Your task to perform on an android device: install app "Flipkart Online Shopping App" Image 0: 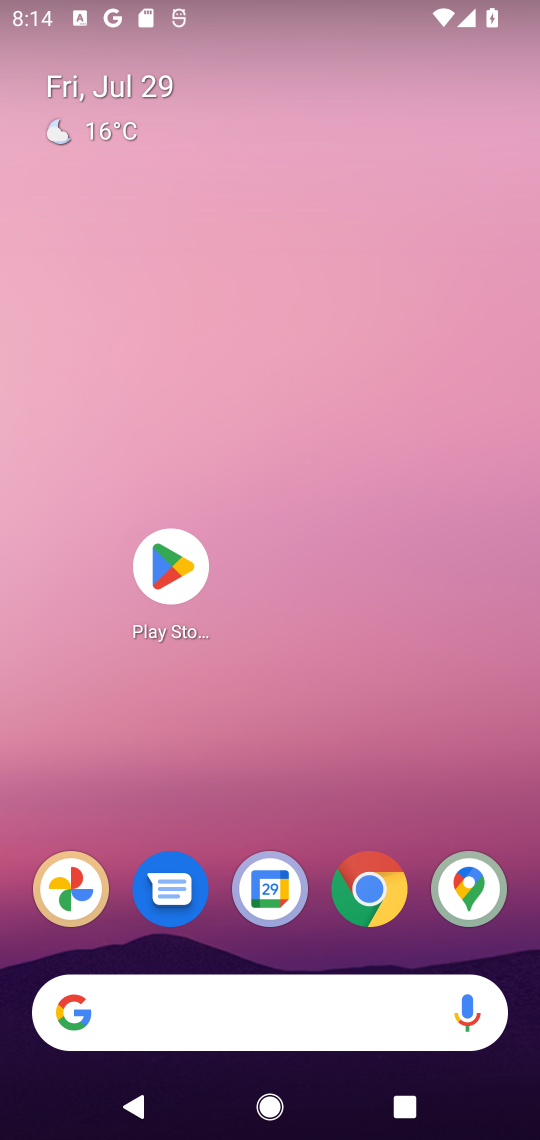
Step 0: press home button
Your task to perform on an android device: install app "Flipkart Online Shopping App" Image 1: 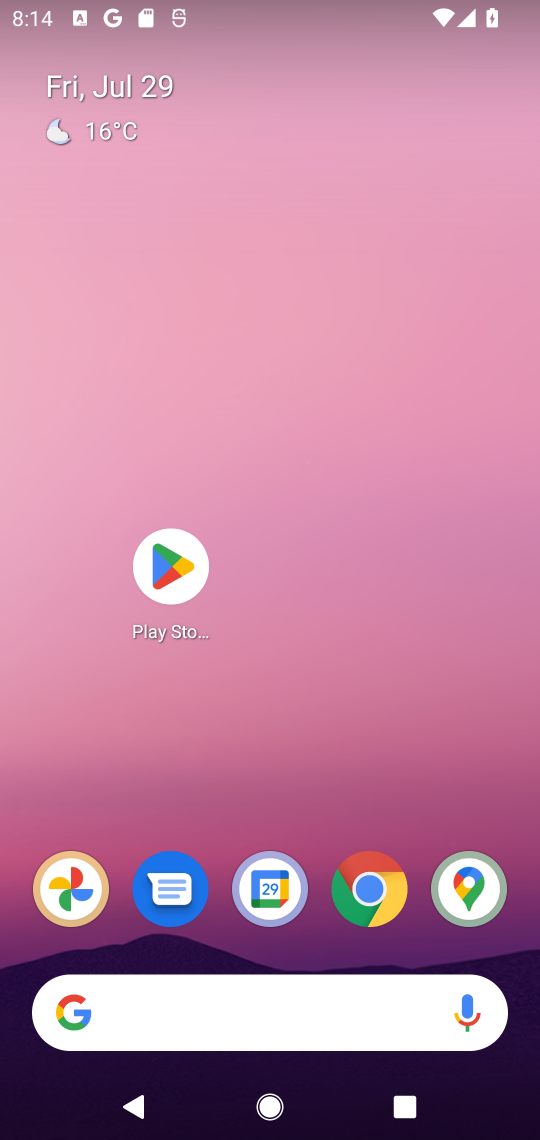
Step 1: click (169, 563)
Your task to perform on an android device: install app "Flipkart Online Shopping App" Image 2: 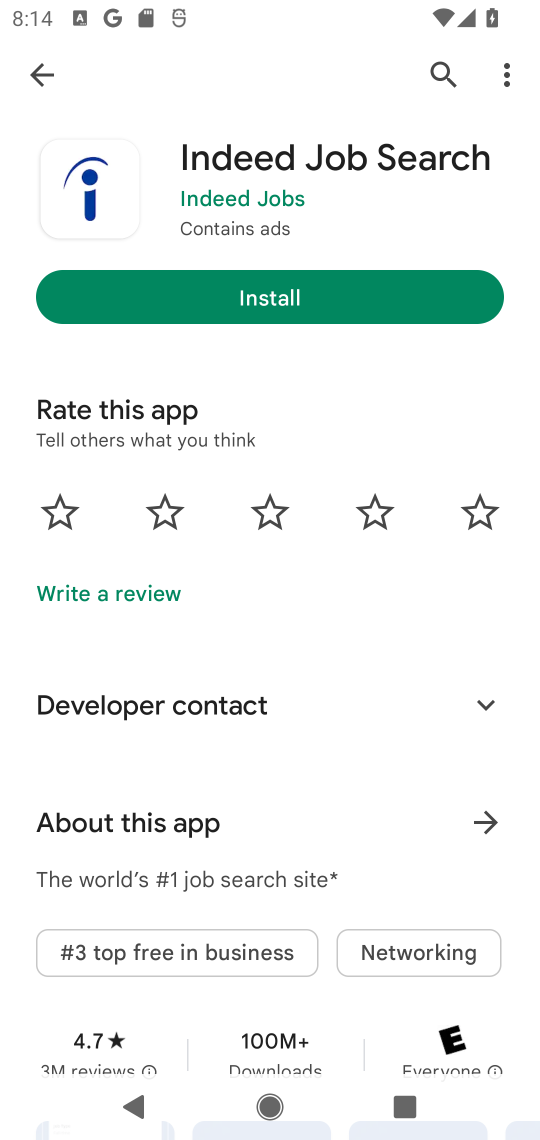
Step 2: click (438, 70)
Your task to perform on an android device: install app "Flipkart Online Shopping App" Image 3: 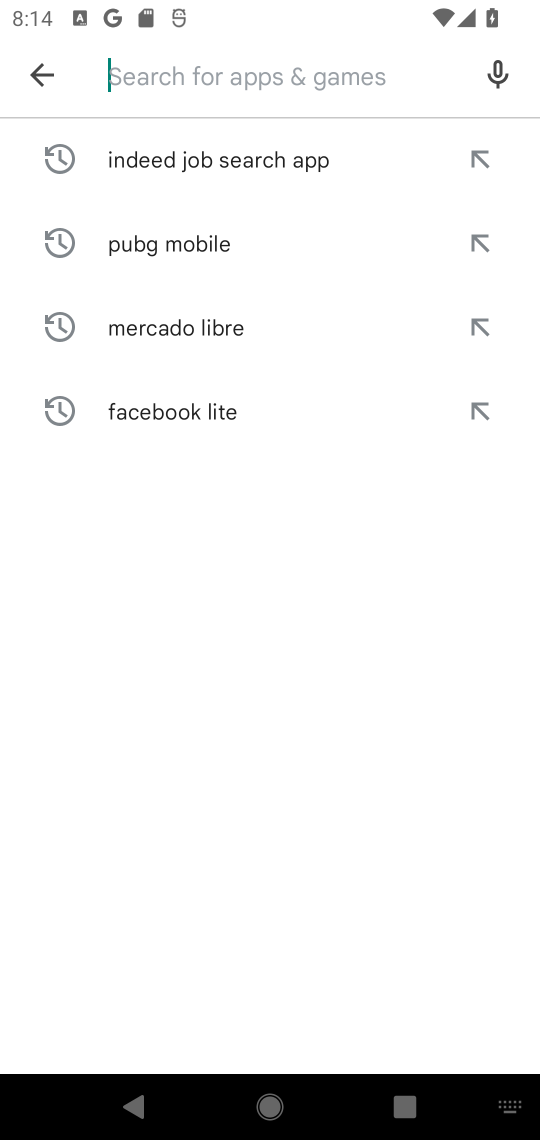
Step 3: type "Flipkart Online Shopping App"
Your task to perform on an android device: install app "Flipkart Online Shopping App" Image 4: 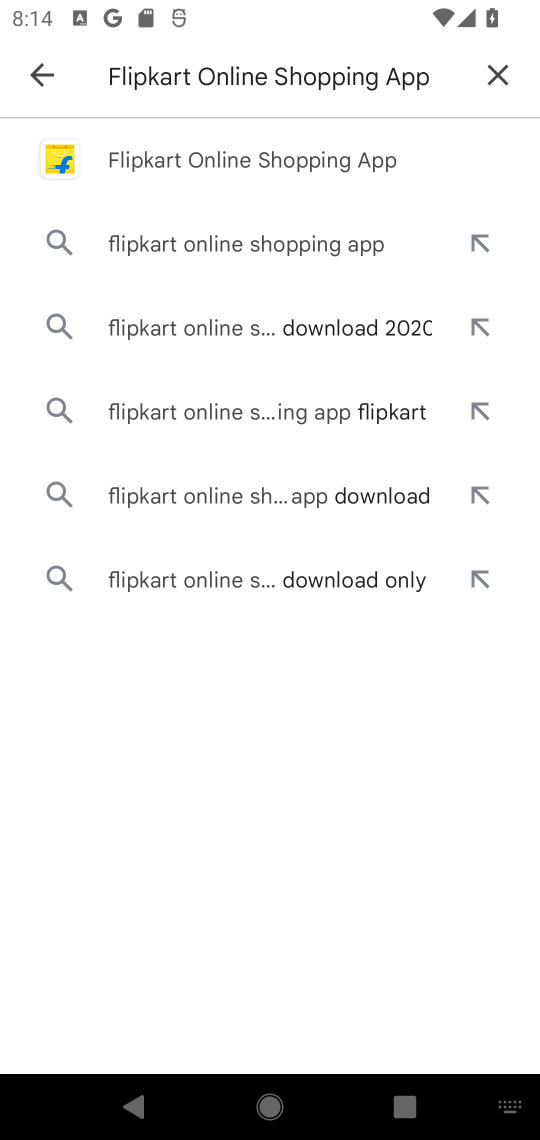
Step 4: click (267, 160)
Your task to perform on an android device: install app "Flipkart Online Shopping App" Image 5: 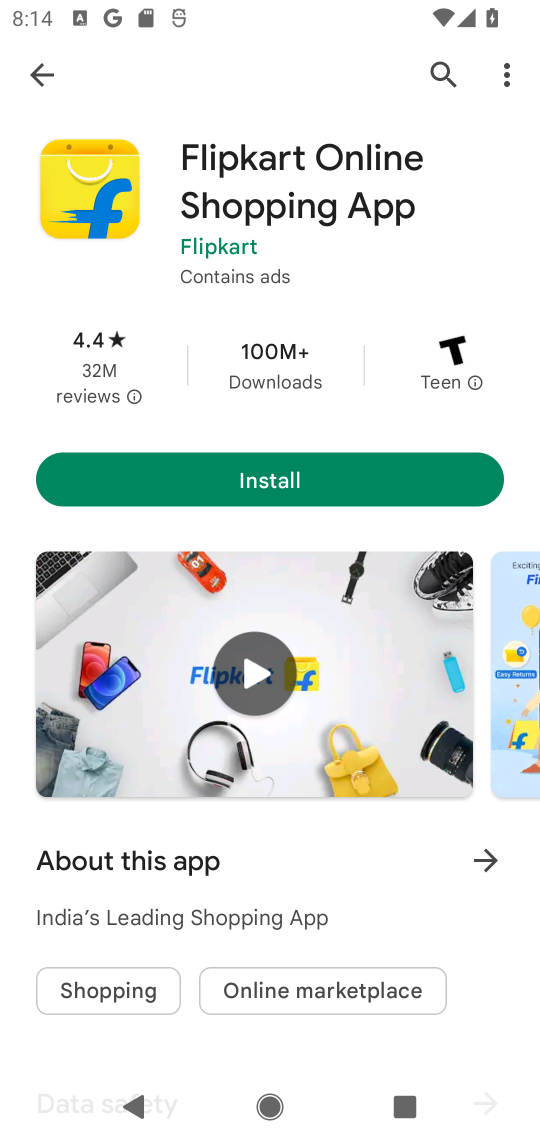
Step 5: click (289, 477)
Your task to perform on an android device: install app "Flipkart Online Shopping App" Image 6: 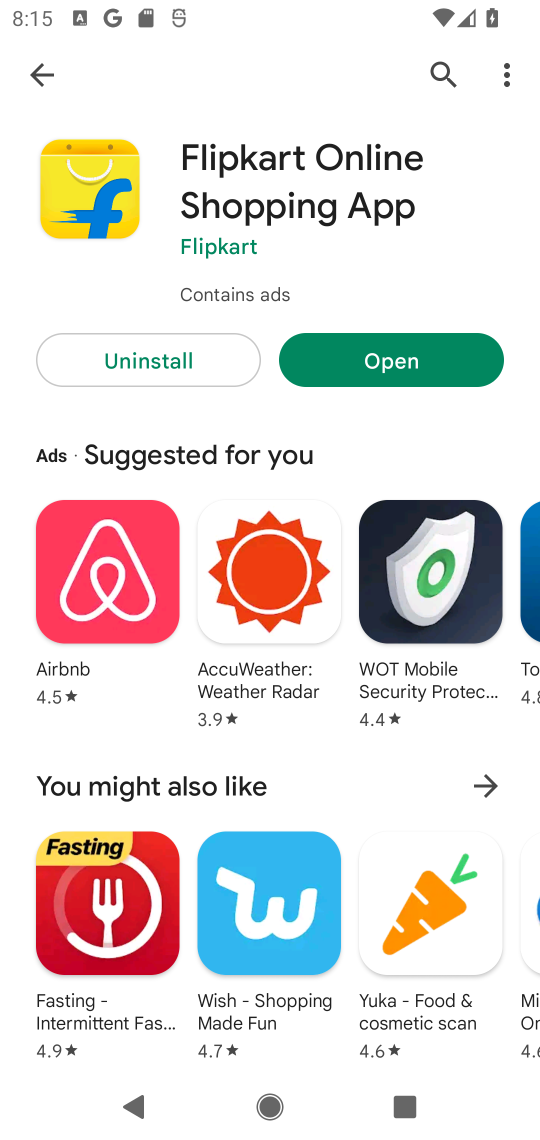
Step 6: task complete